Your task to perform on an android device: change text size in settings app Image 0: 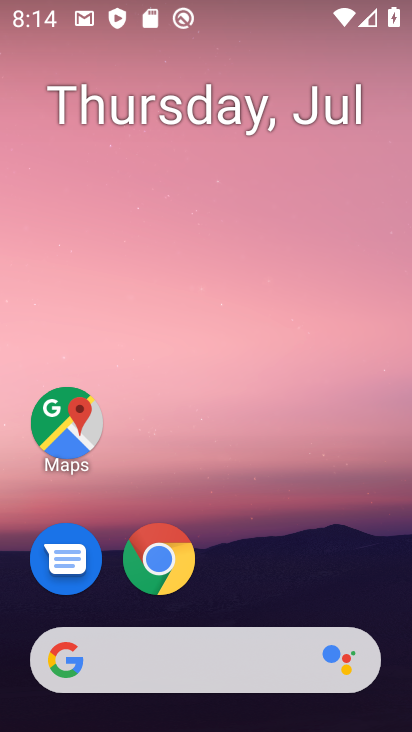
Step 0: drag from (253, 594) to (273, 27)
Your task to perform on an android device: change text size in settings app Image 1: 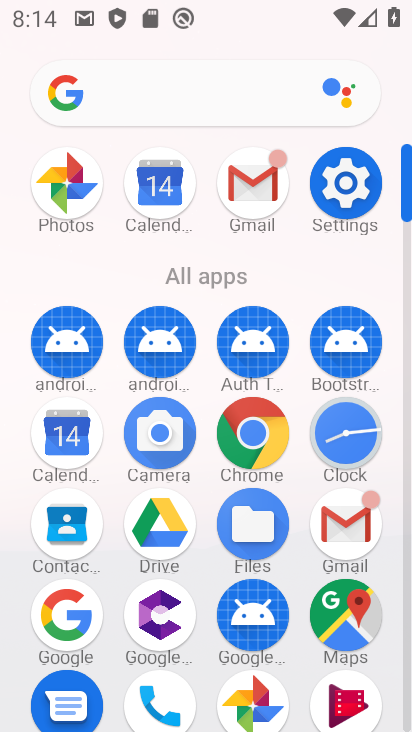
Step 1: click (345, 176)
Your task to perform on an android device: change text size in settings app Image 2: 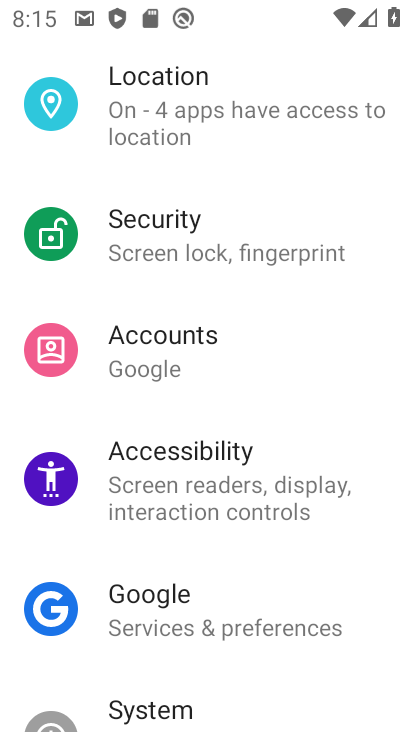
Step 2: drag from (180, 212) to (270, 678)
Your task to perform on an android device: change text size in settings app Image 3: 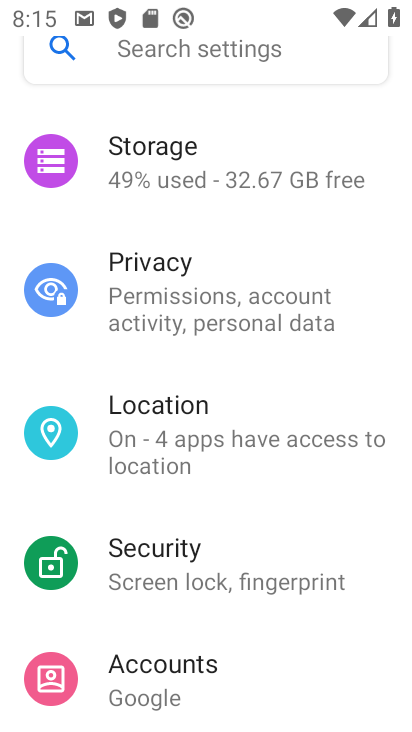
Step 3: click (181, 90)
Your task to perform on an android device: change text size in settings app Image 4: 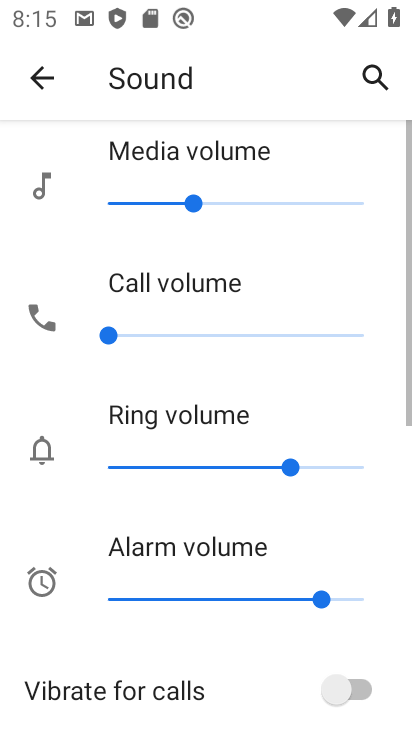
Step 4: click (192, 65)
Your task to perform on an android device: change text size in settings app Image 5: 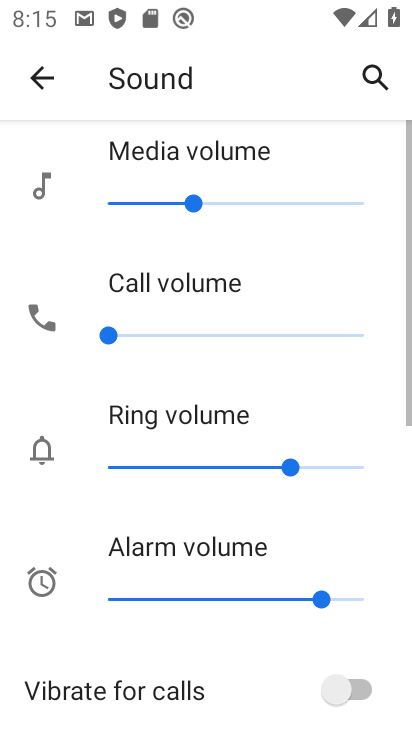
Step 5: click (31, 72)
Your task to perform on an android device: change text size in settings app Image 6: 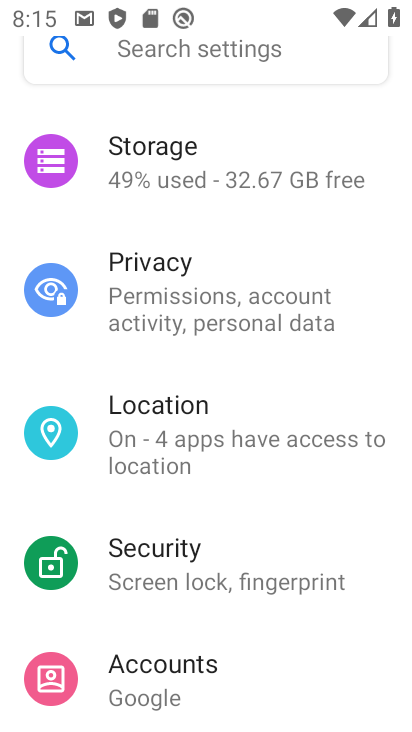
Step 6: click (169, 56)
Your task to perform on an android device: change text size in settings app Image 7: 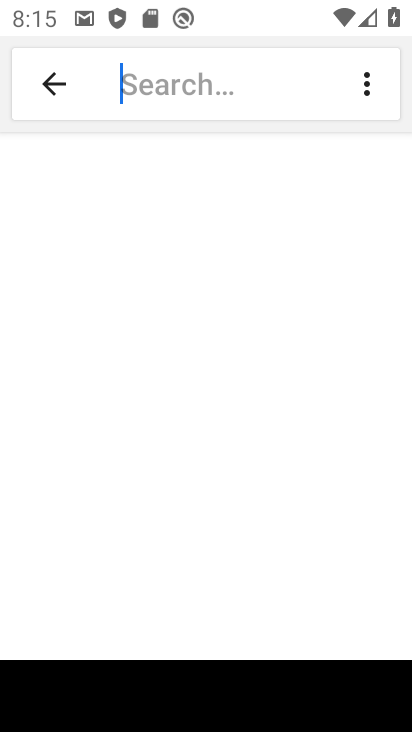
Step 7: type "text size"
Your task to perform on an android device: change text size in settings app Image 8: 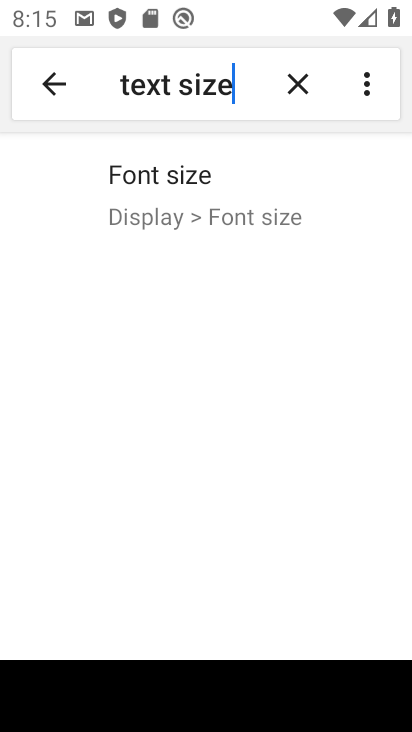
Step 8: click (193, 181)
Your task to perform on an android device: change text size in settings app Image 9: 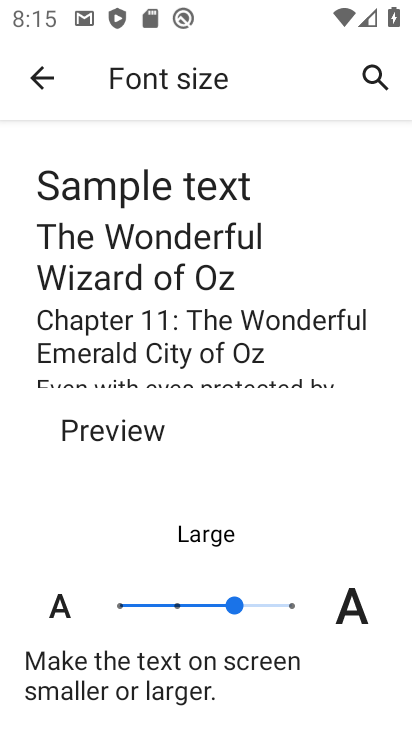
Step 9: task complete